Your task to perform on an android device: What is the recent news? Image 0: 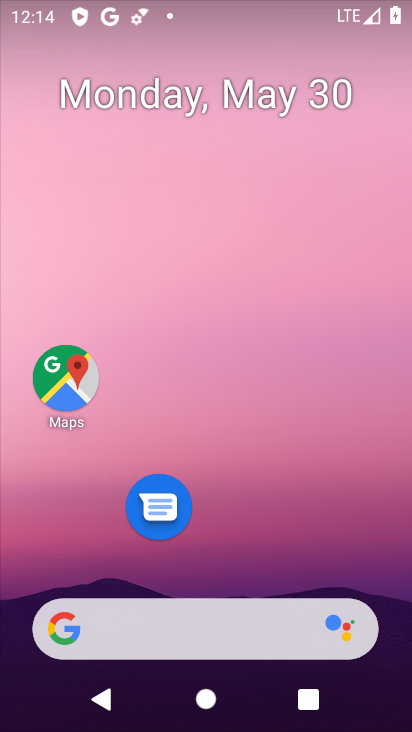
Step 0: drag from (248, 528) to (299, 143)
Your task to perform on an android device: What is the recent news? Image 1: 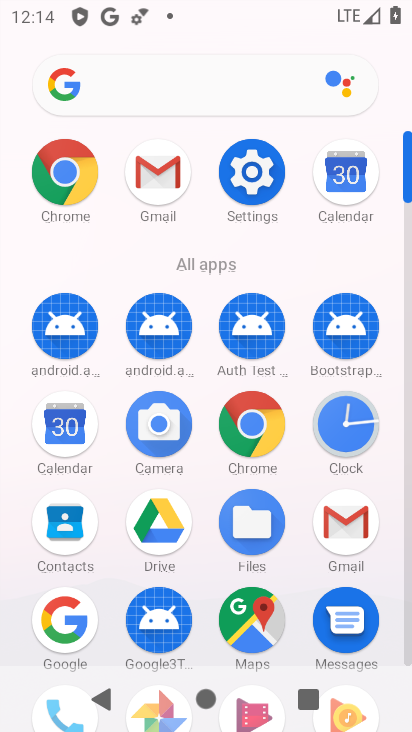
Step 1: click (259, 424)
Your task to perform on an android device: What is the recent news? Image 2: 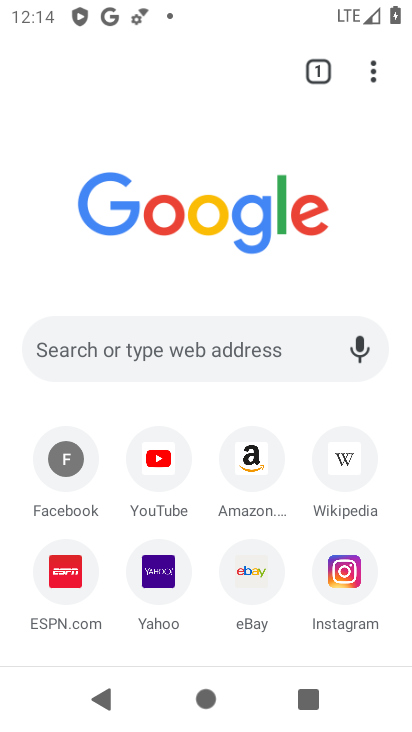
Step 2: click (276, 345)
Your task to perform on an android device: What is the recent news? Image 3: 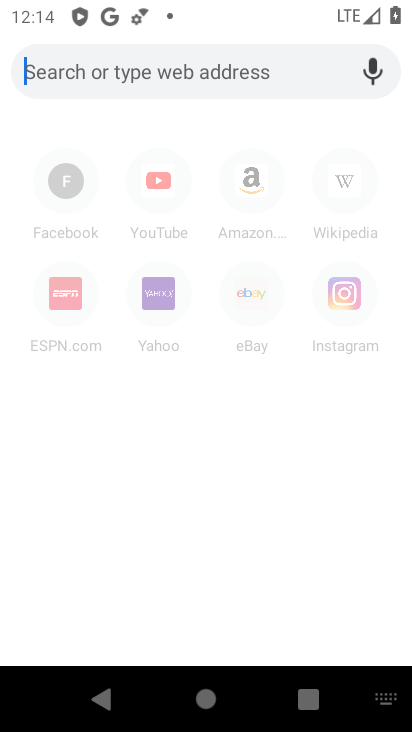
Step 3: type "What is the recent news?"
Your task to perform on an android device: What is the recent news? Image 4: 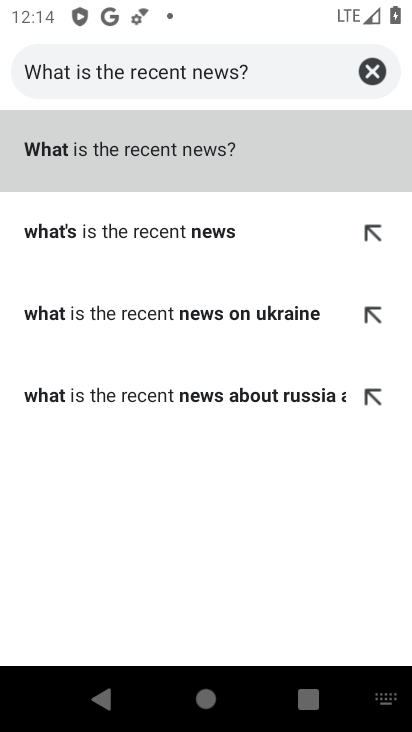
Step 4: click (83, 155)
Your task to perform on an android device: What is the recent news? Image 5: 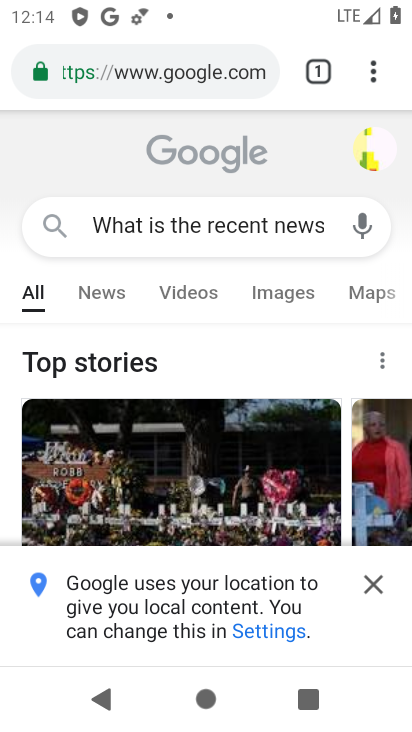
Step 5: click (95, 302)
Your task to perform on an android device: What is the recent news? Image 6: 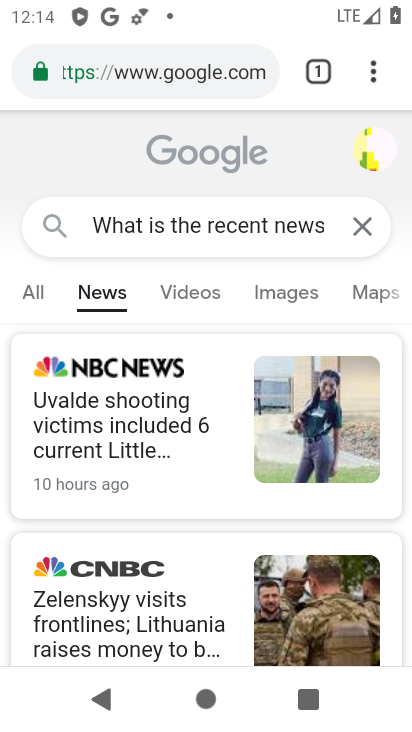
Step 6: task complete